Your task to perform on an android device: Open calendar and show me the fourth week of next month Image 0: 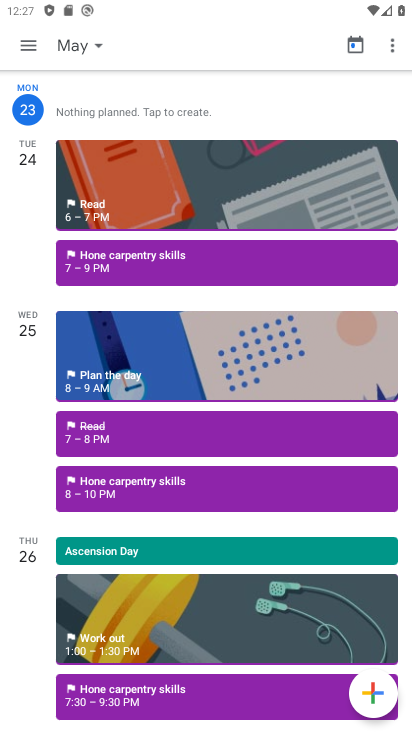
Step 0: press back button
Your task to perform on an android device: Open calendar and show me the fourth week of next month Image 1: 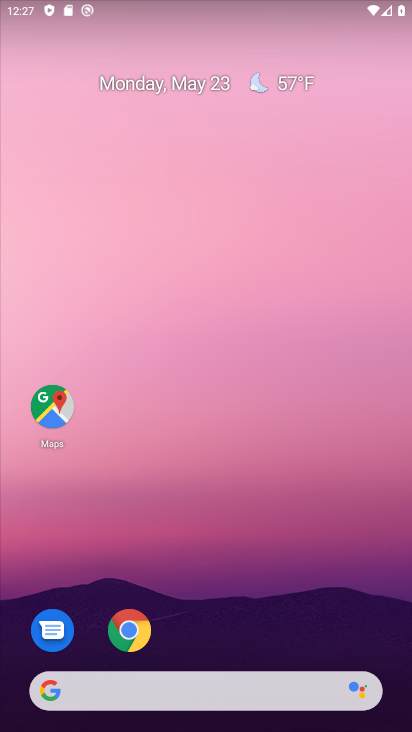
Step 1: drag from (244, 558) to (191, 31)
Your task to perform on an android device: Open calendar and show me the fourth week of next month Image 2: 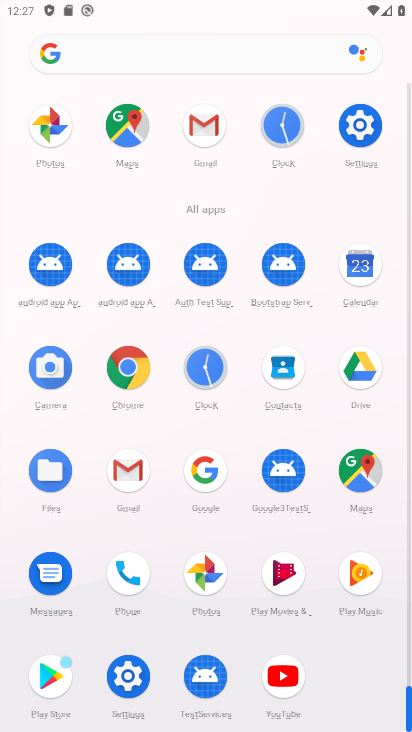
Step 2: drag from (13, 539) to (5, 169)
Your task to perform on an android device: Open calendar and show me the fourth week of next month Image 3: 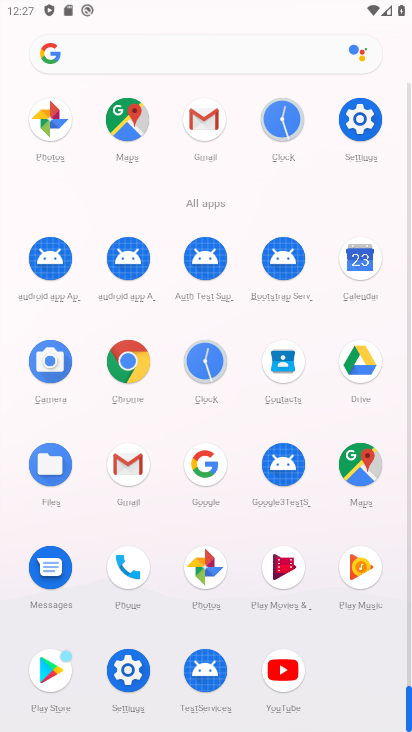
Step 3: click (356, 265)
Your task to perform on an android device: Open calendar and show me the fourth week of next month Image 4: 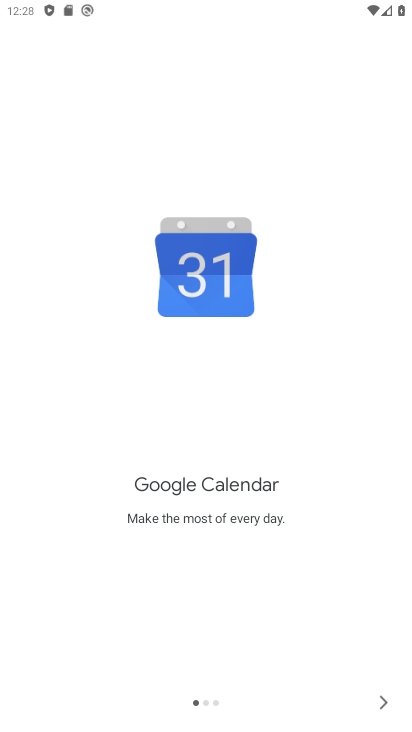
Step 4: click (375, 692)
Your task to perform on an android device: Open calendar and show me the fourth week of next month Image 5: 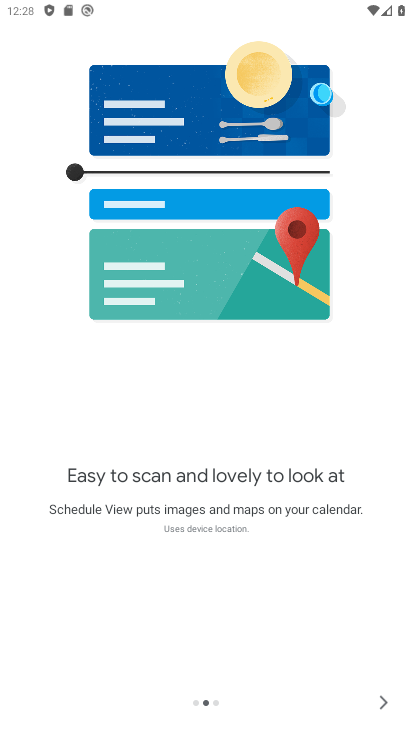
Step 5: click (373, 693)
Your task to perform on an android device: Open calendar and show me the fourth week of next month Image 6: 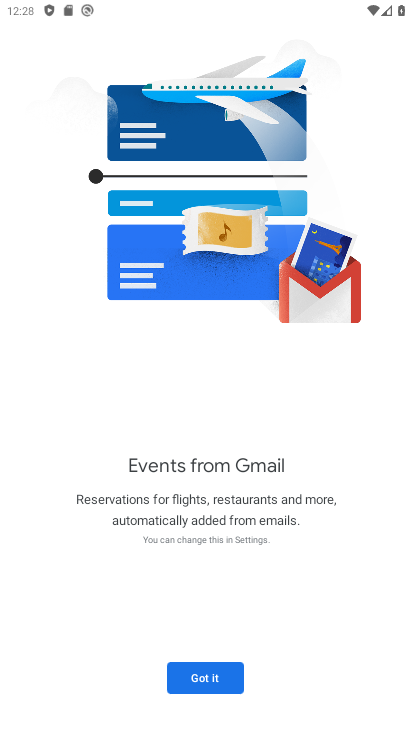
Step 6: click (225, 675)
Your task to perform on an android device: Open calendar and show me the fourth week of next month Image 7: 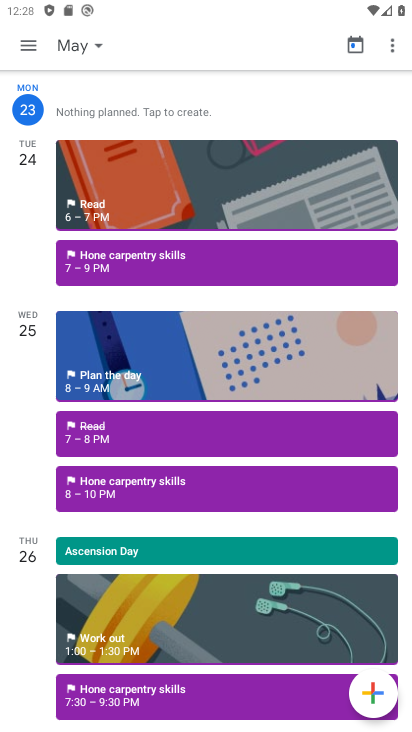
Step 7: click (92, 38)
Your task to perform on an android device: Open calendar and show me the fourth week of next month Image 8: 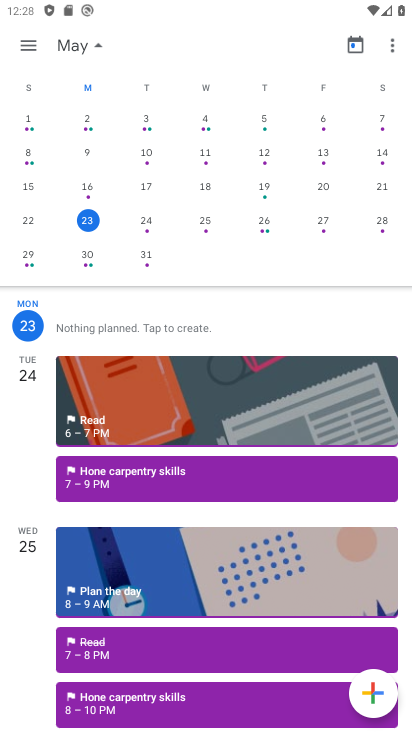
Step 8: drag from (390, 164) to (0, 118)
Your task to perform on an android device: Open calendar and show me the fourth week of next month Image 9: 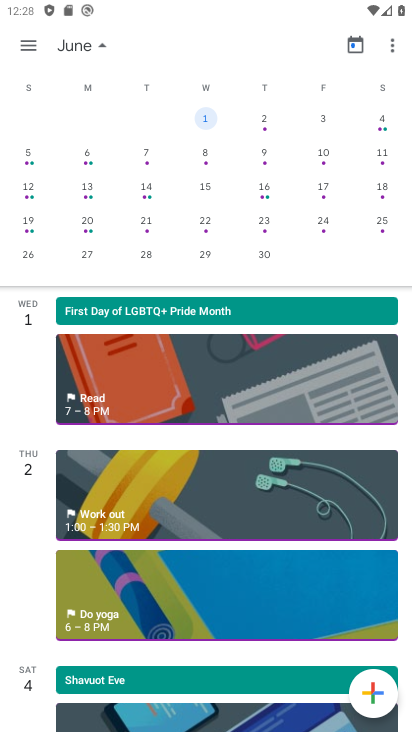
Step 9: click (23, 228)
Your task to perform on an android device: Open calendar and show me the fourth week of next month Image 10: 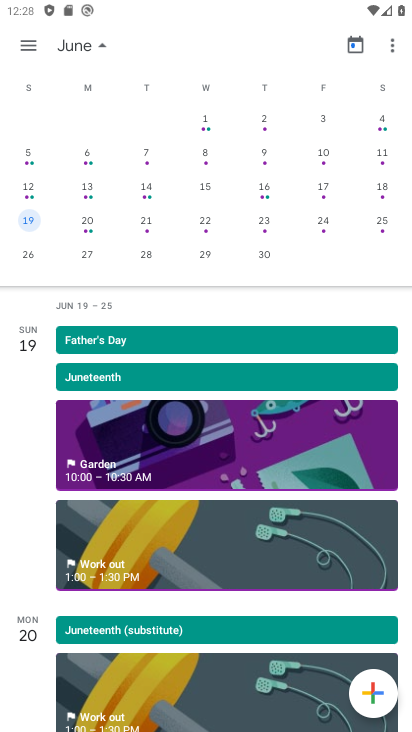
Step 10: task complete